Your task to perform on an android device: Go to accessibility settings Image 0: 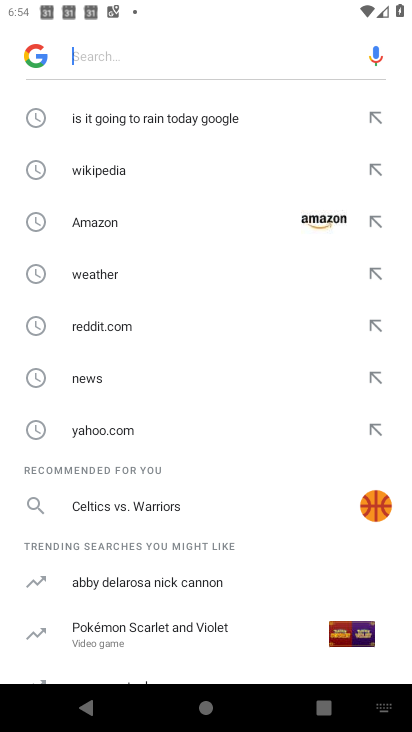
Step 0: press home button
Your task to perform on an android device: Go to accessibility settings Image 1: 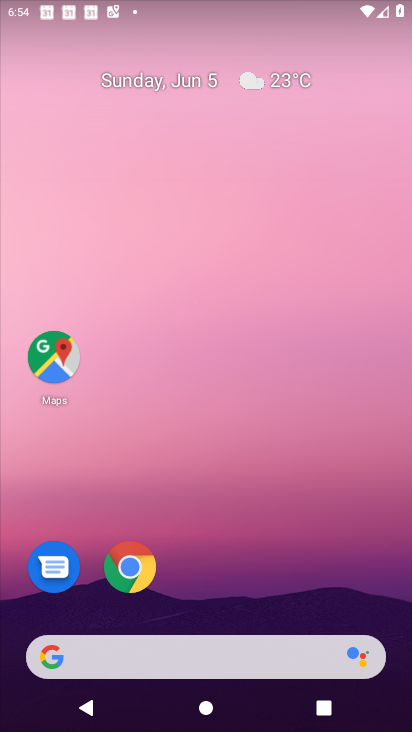
Step 1: drag from (381, 362) to (337, 183)
Your task to perform on an android device: Go to accessibility settings Image 2: 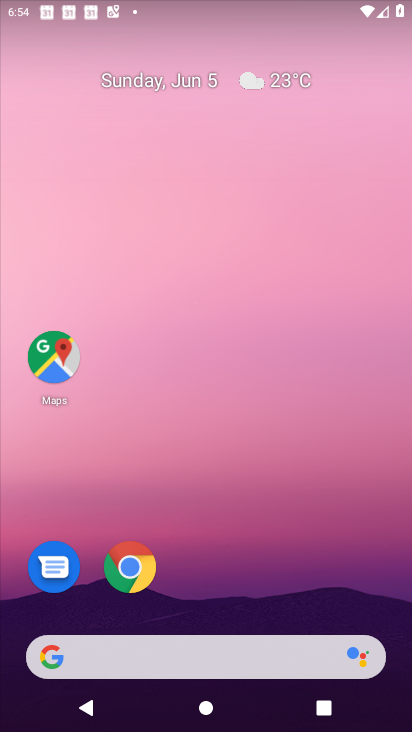
Step 2: click (274, 9)
Your task to perform on an android device: Go to accessibility settings Image 3: 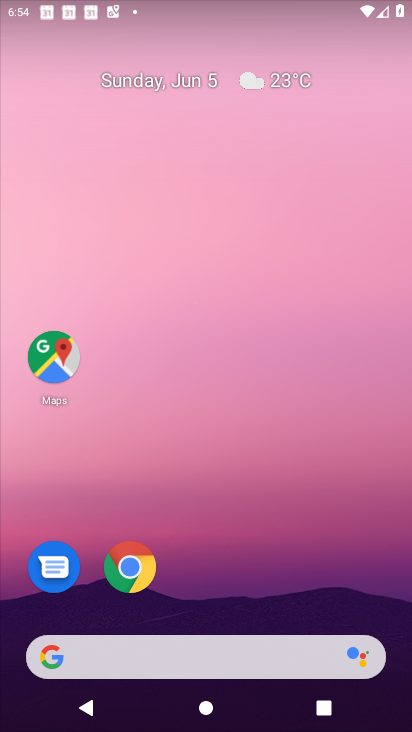
Step 3: drag from (402, 653) to (261, 0)
Your task to perform on an android device: Go to accessibility settings Image 4: 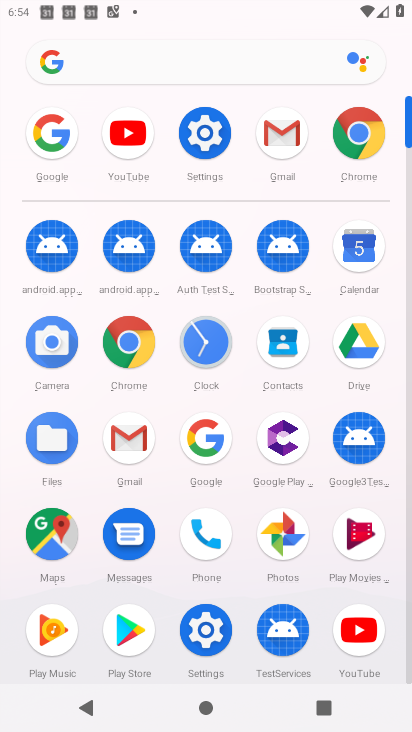
Step 4: click (207, 135)
Your task to perform on an android device: Go to accessibility settings Image 5: 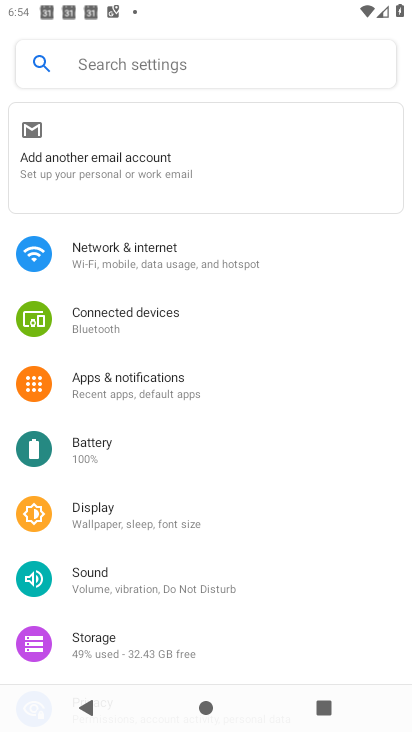
Step 5: drag from (138, 595) to (217, 209)
Your task to perform on an android device: Go to accessibility settings Image 6: 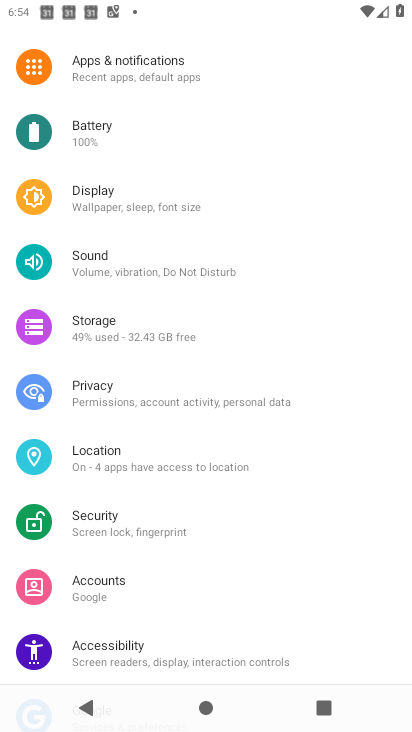
Step 6: click (134, 659)
Your task to perform on an android device: Go to accessibility settings Image 7: 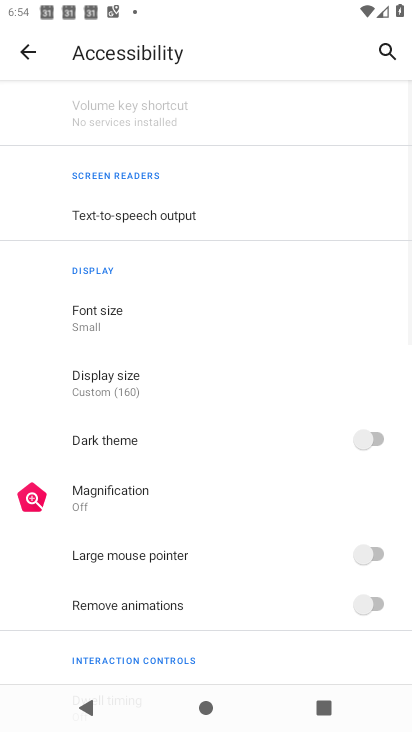
Step 7: task complete